Your task to perform on an android device: Clear all items from cart on newegg. Add macbook pro 13 inch to the cart on newegg, then select checkout. Image 0: 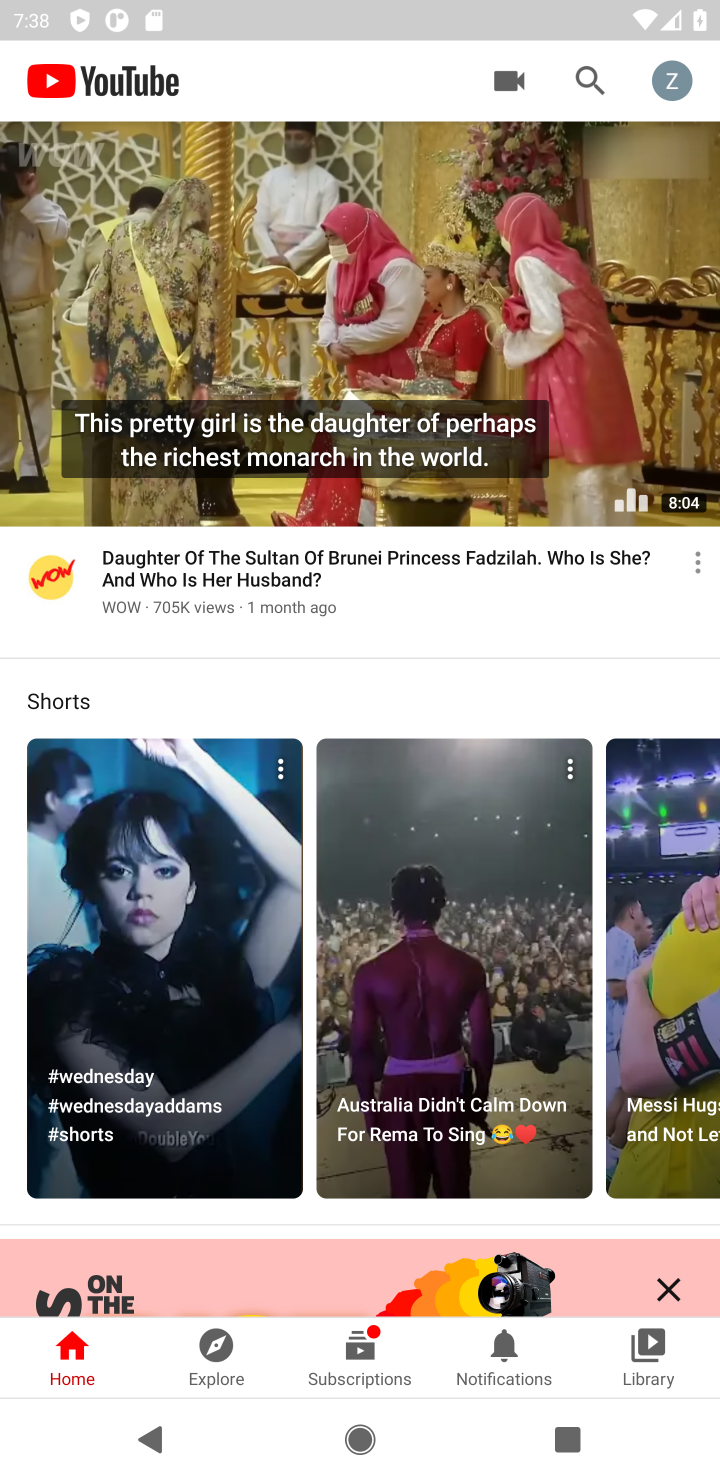
Step 0: press home button
Your task to perform on an android device: Clear all items from cart on newegg. Add macbook pro 13 inch to the cart on newegg, then select checkout. Image 1: 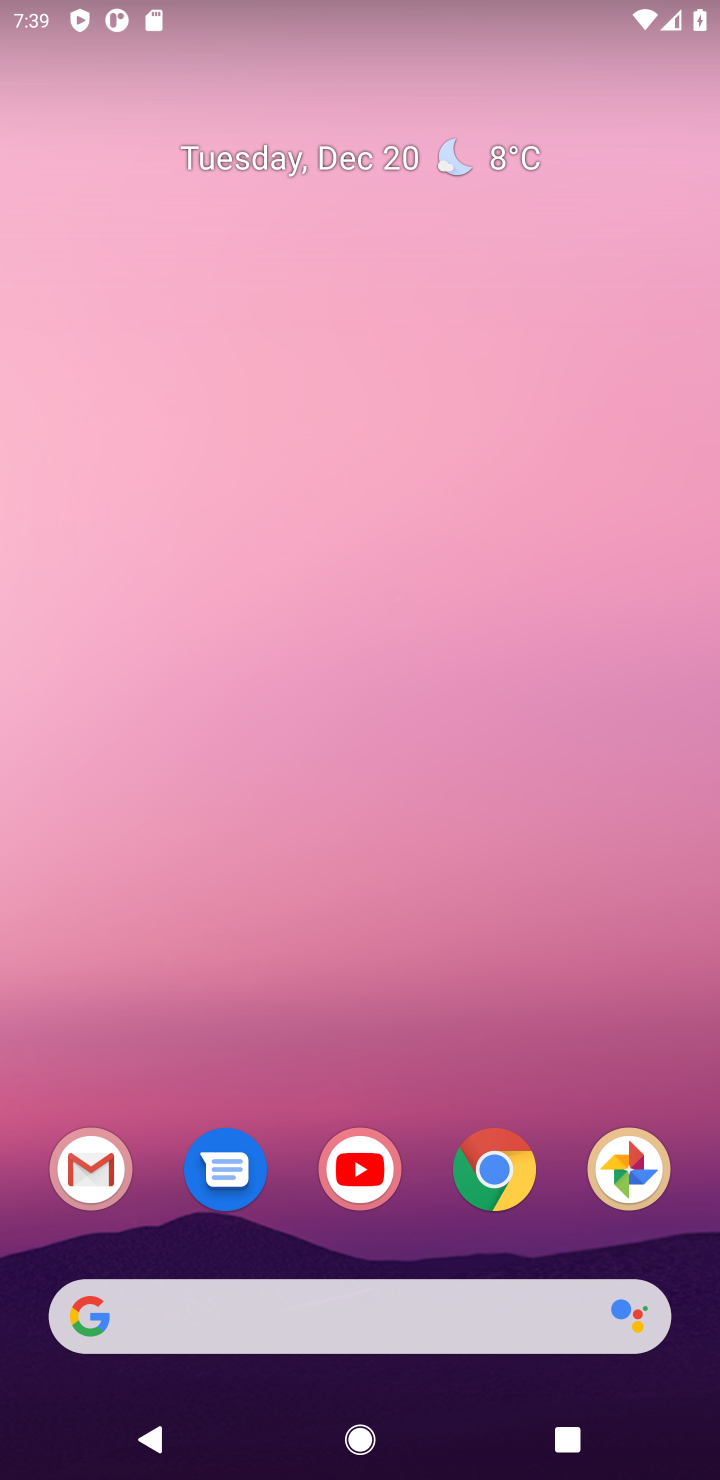
Step 1: click (498, 1135)
Your task to perform on an android device: Clear all items from cart on newegg. Add macbook pro 13 inch to the cart on newegg, then select checkout. Image 2: 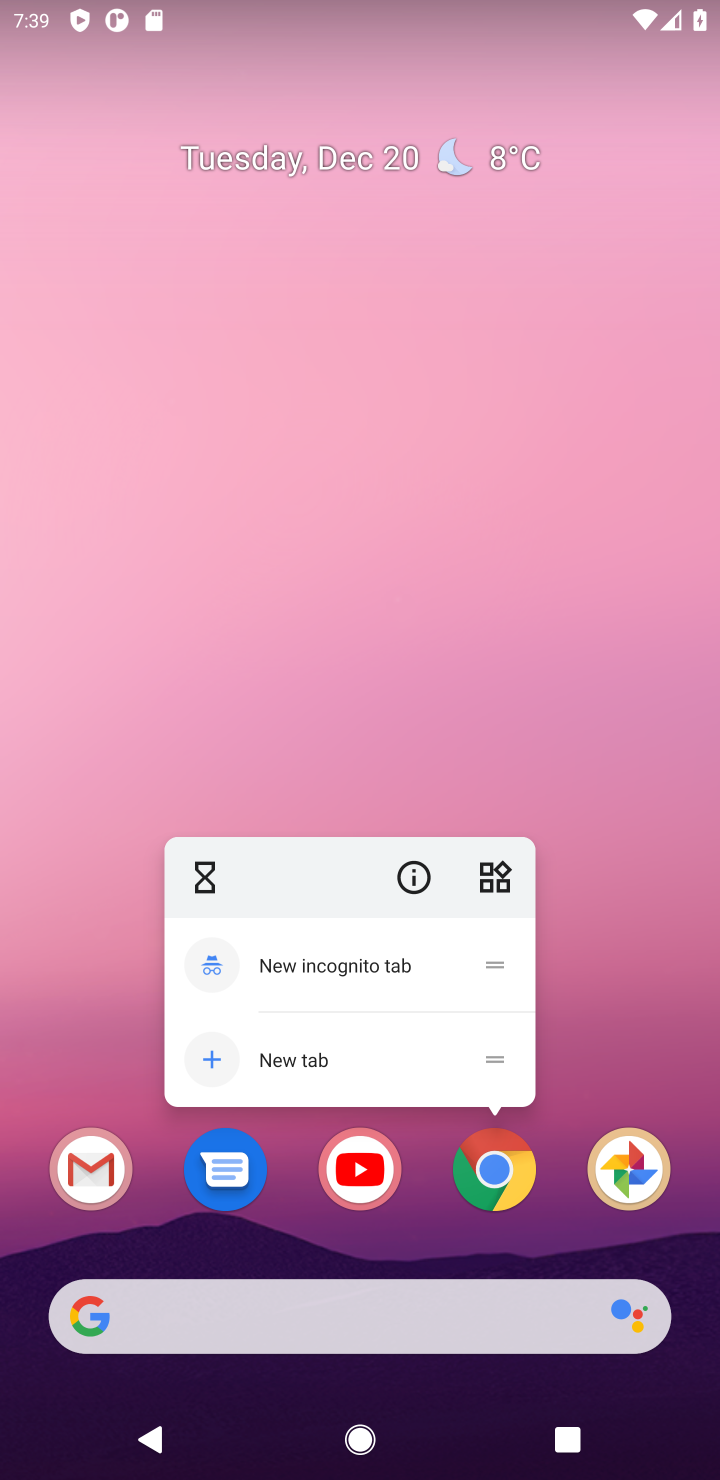
Step 2: click (473, 1179)
Your task to perform on an android device: Clear all items from cart on newegg. Add macbook pro 13 inch to the cart on newegg, then select checkout. Image 3: 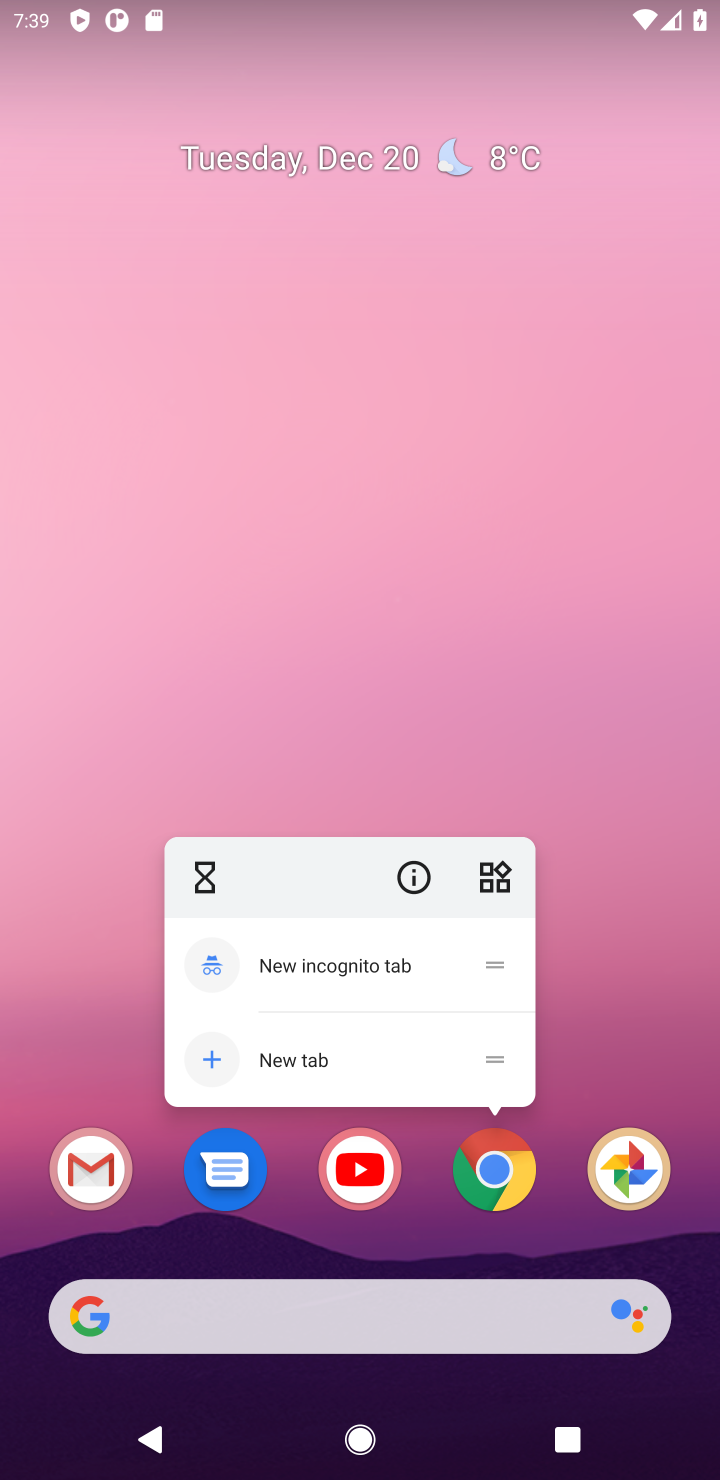
Step 3: click (473, 1179)
Your task to perform on an android device: Clear all items from cart on newegg. Add macbook pro 13 inch to the cart on newegg, then select checkout. Image 4: 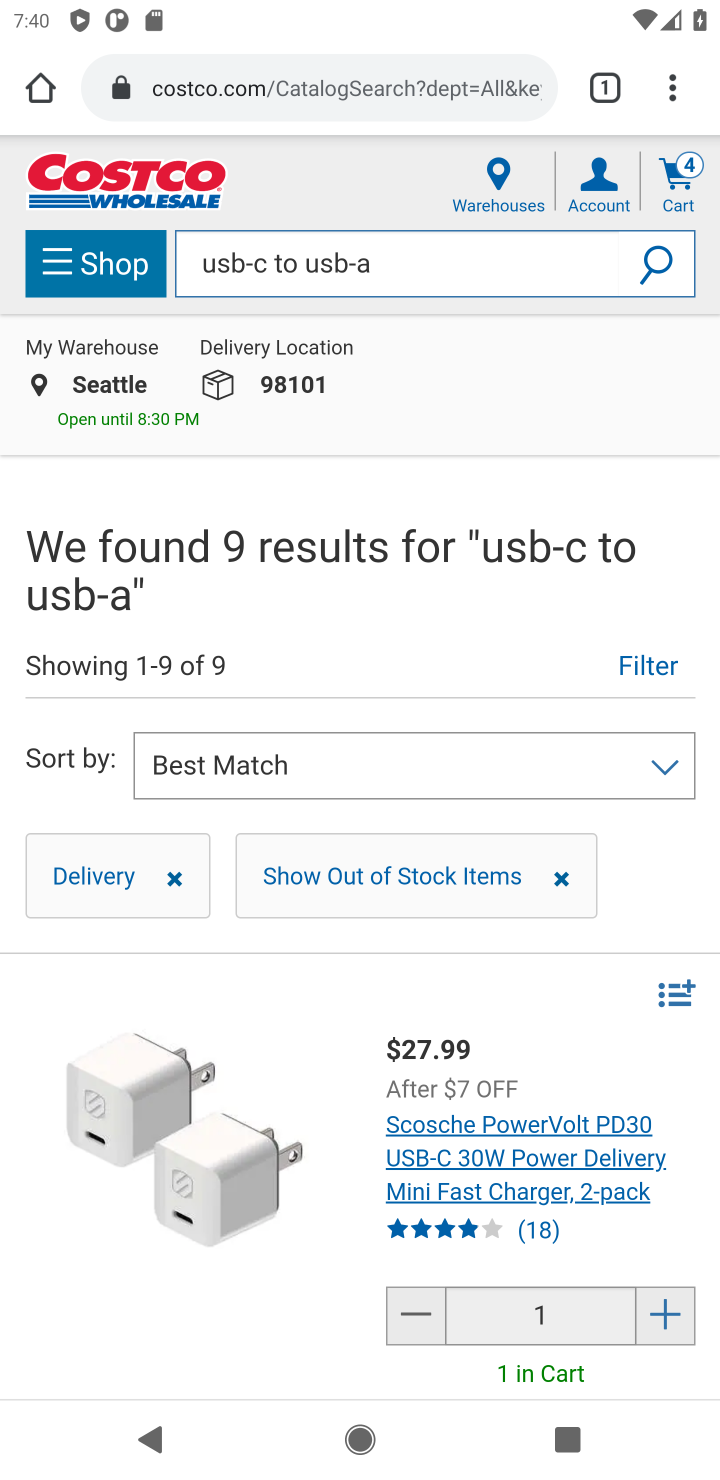
Step 4: click (310, 102)
Your task to perform on an android device: Clear all items from cart on newegg. Add macbook pro 13 inch to the cart on newegg, then select checkout. Image 5: 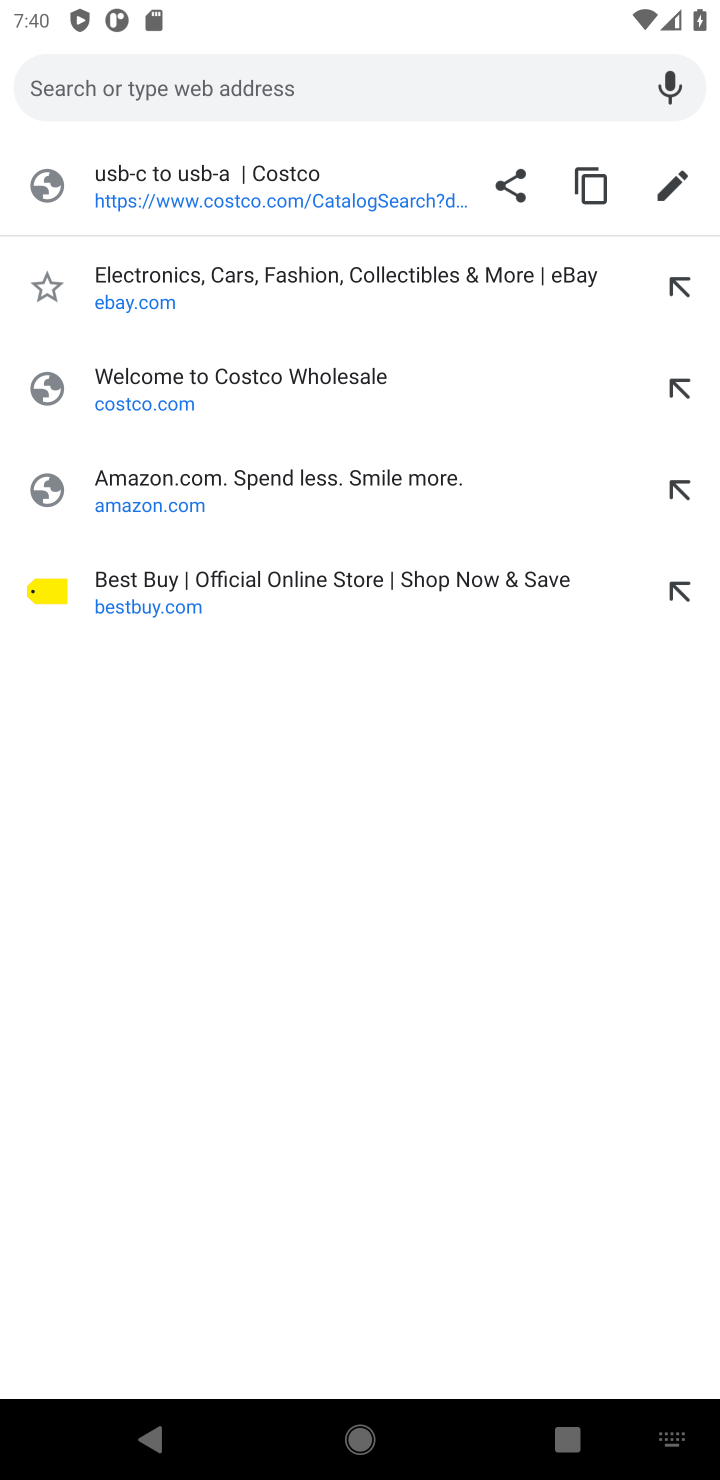
Step 5: type "newegg"
Your task to perform on an android device: Clear all items from cart on newegg. Add macbook pro 13 inch to the cart on newegg, then select checkout. Image 6: 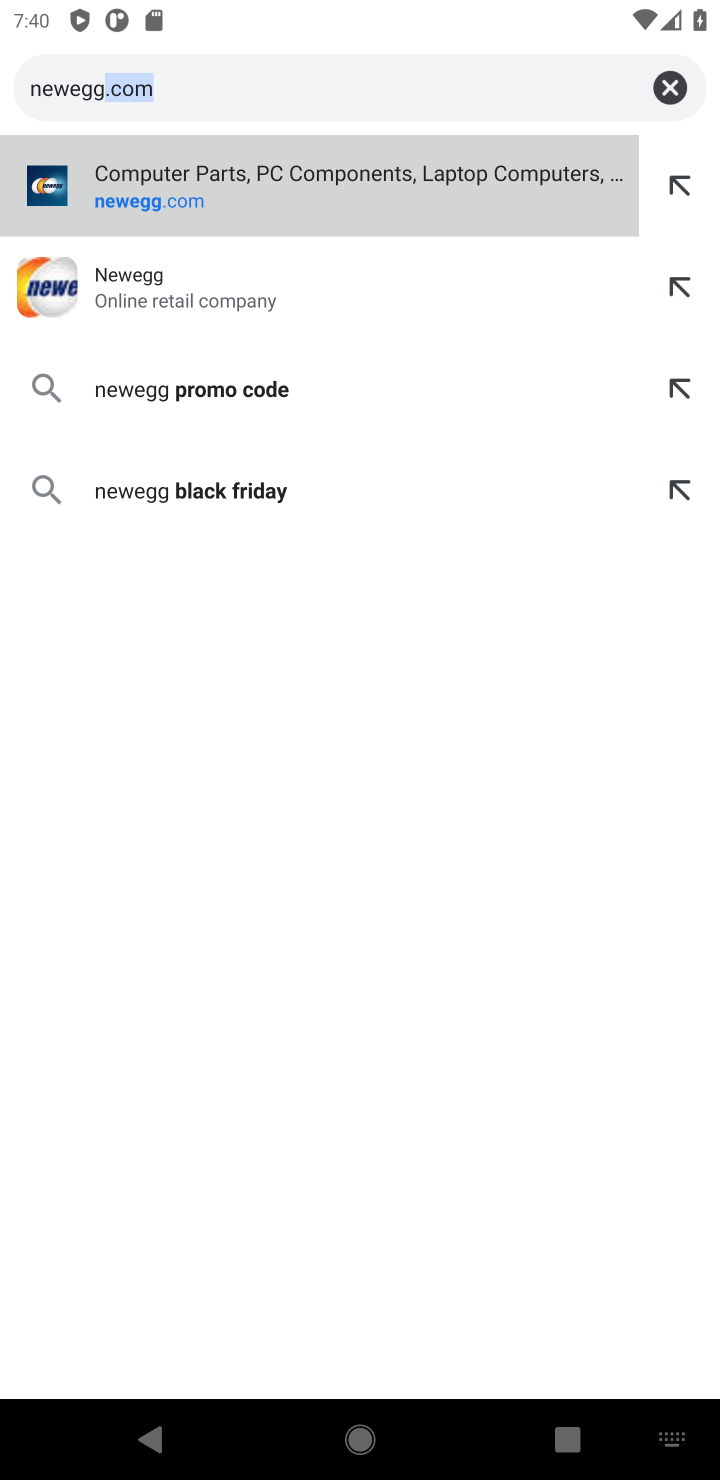
Step 6: click (295, 177)
Your task to perform on an android device: Clear all items from cart on newegg. Add macbook pro 13 inch to the cart on newegg, then select checkout. Image 7: 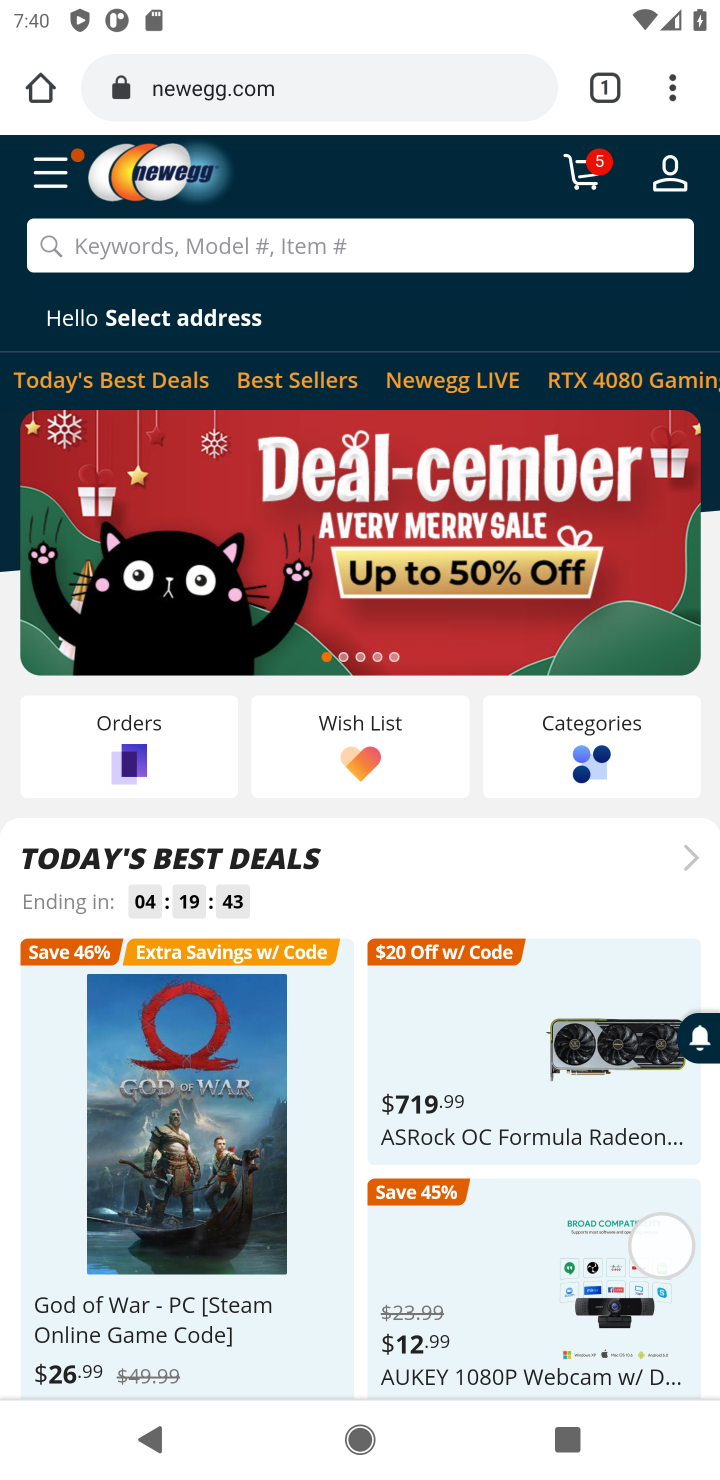
Step 7: click (406, 255)
Your task to perform on an android device: Clear all items from cart on newegg. Add macbook pro 13 inch to the cart on newegg, then select checkout. Image 8: 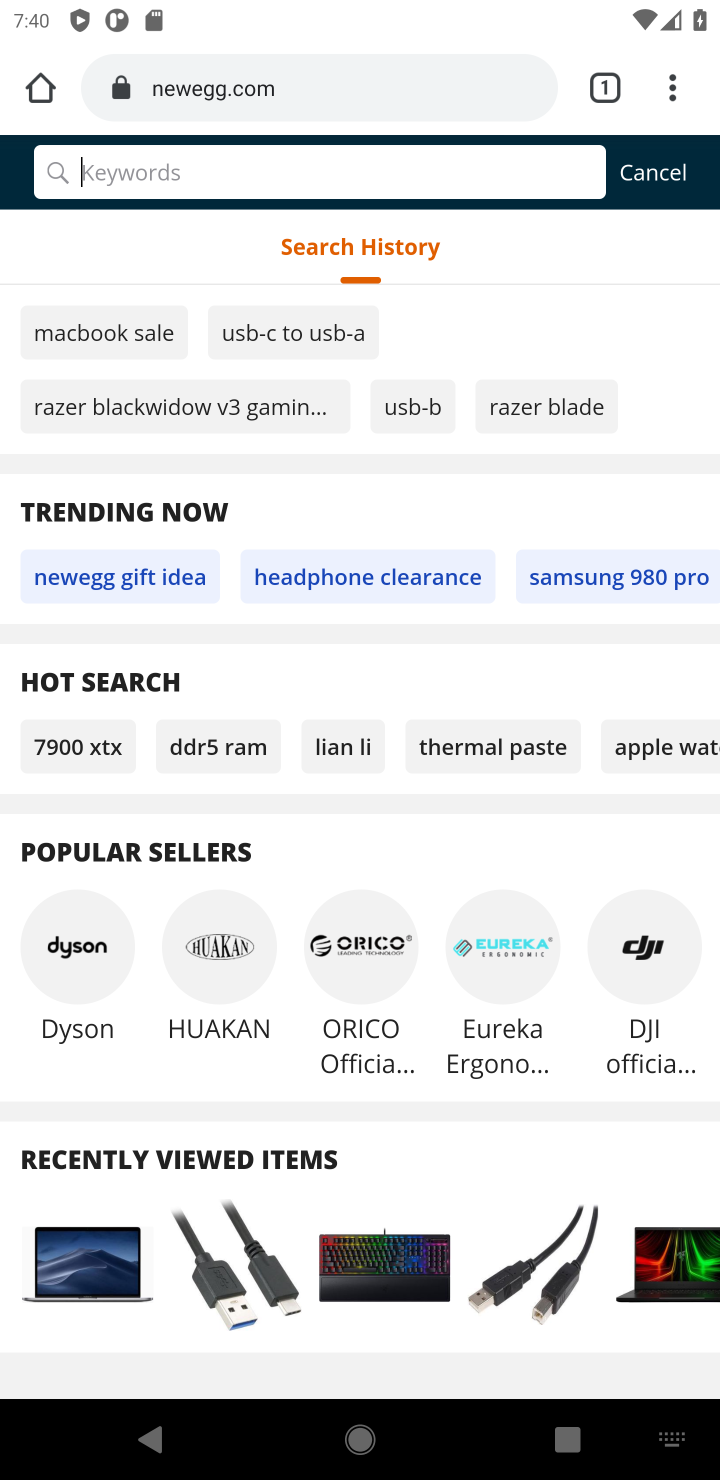
Step 8: type "macbook pro 13"
Your task to perform on an android device: Clear all items from cart on newegg. Add macbook pro 13 inch to the cart on newegg, then select checkout. Image 9: 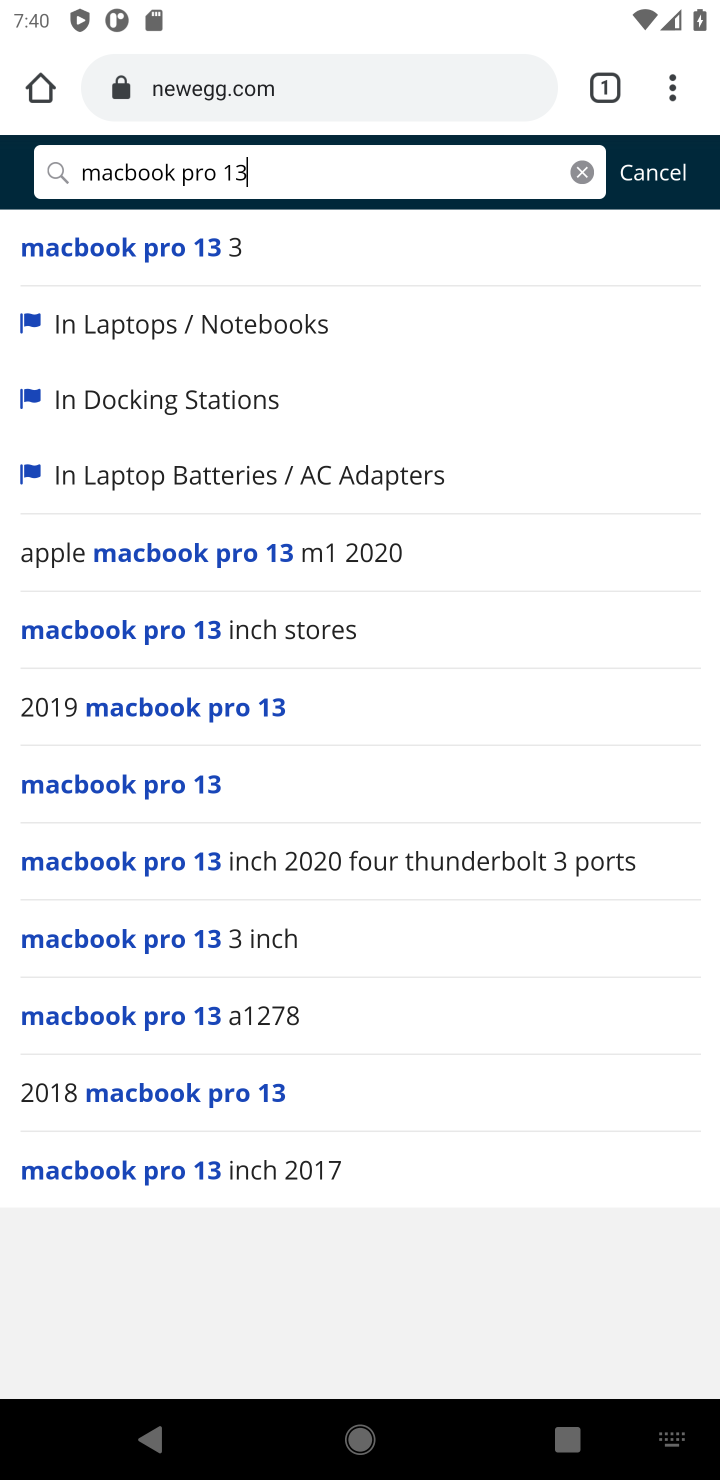
Step 9: click (127, 266)
Your task to perform on an android device: Clear all items from cart on newegg. Add macbook pro 13 inch to the cart on newegg, then select checkout. Image 10: 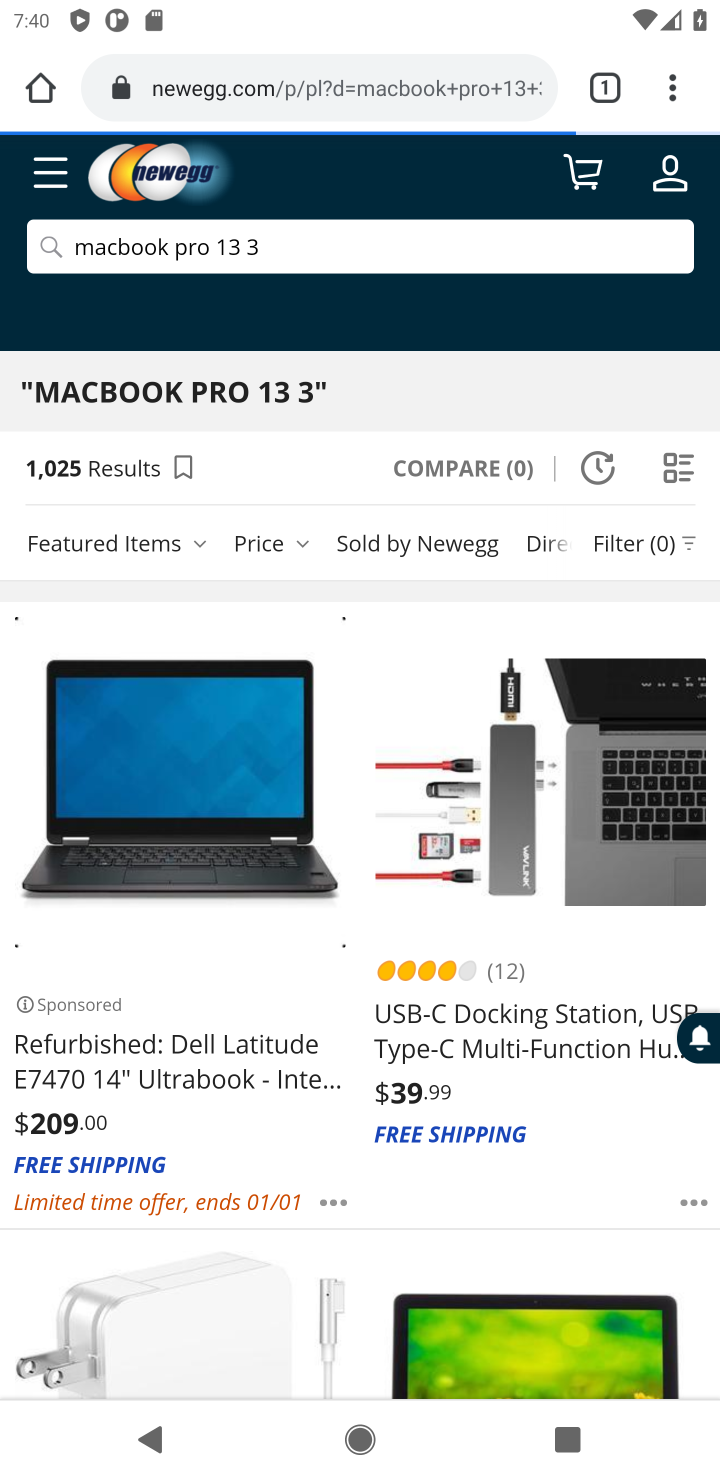
Step 10: click (195, 755)
Your task to perform on an android device: Clear all items from cart on newegg. Add macbook pro 13 inch to the cart on newegg, then select checkout. Image 11: 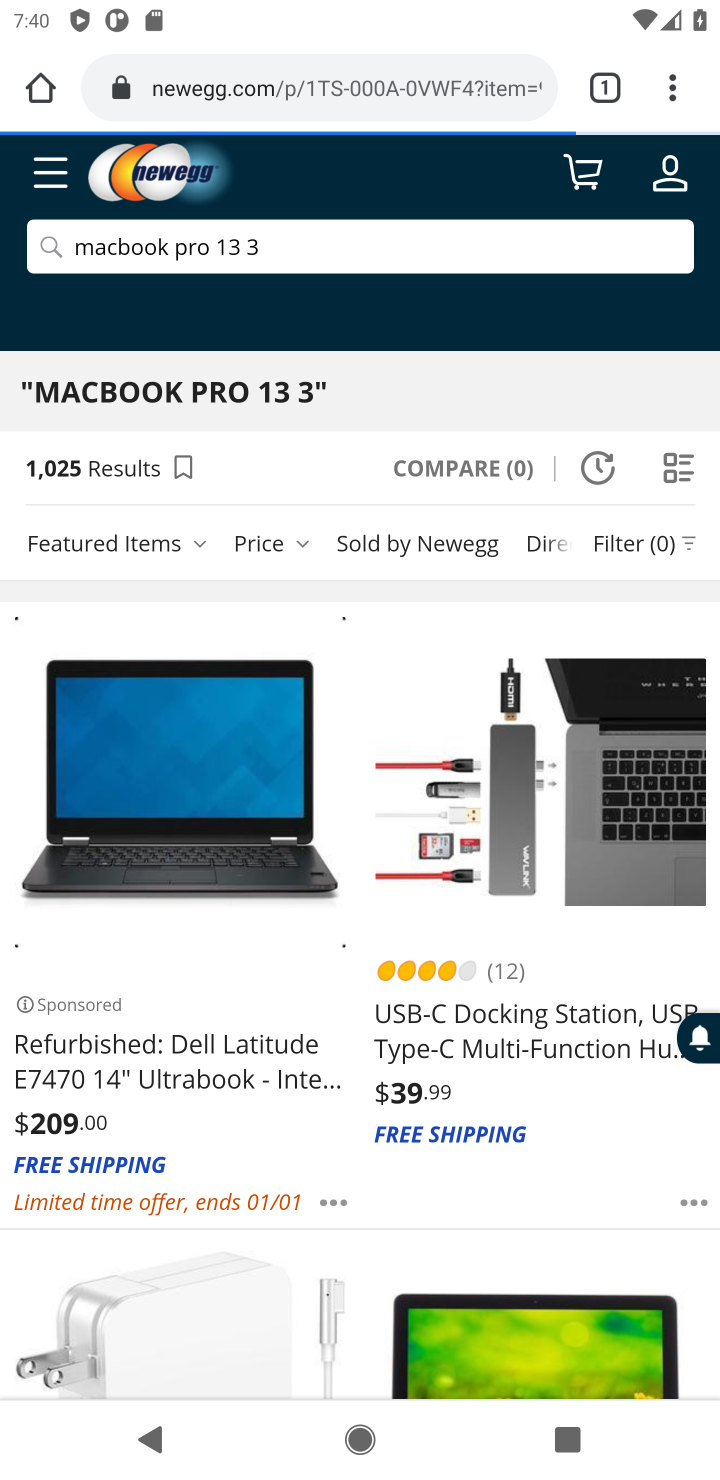
Step 11: click (186, 1095)
Your task to perform on an android device: Clear all items from cart on newegg. Add macbook pro 13 inch to the cart on newegg, then select checkout. Image 12: 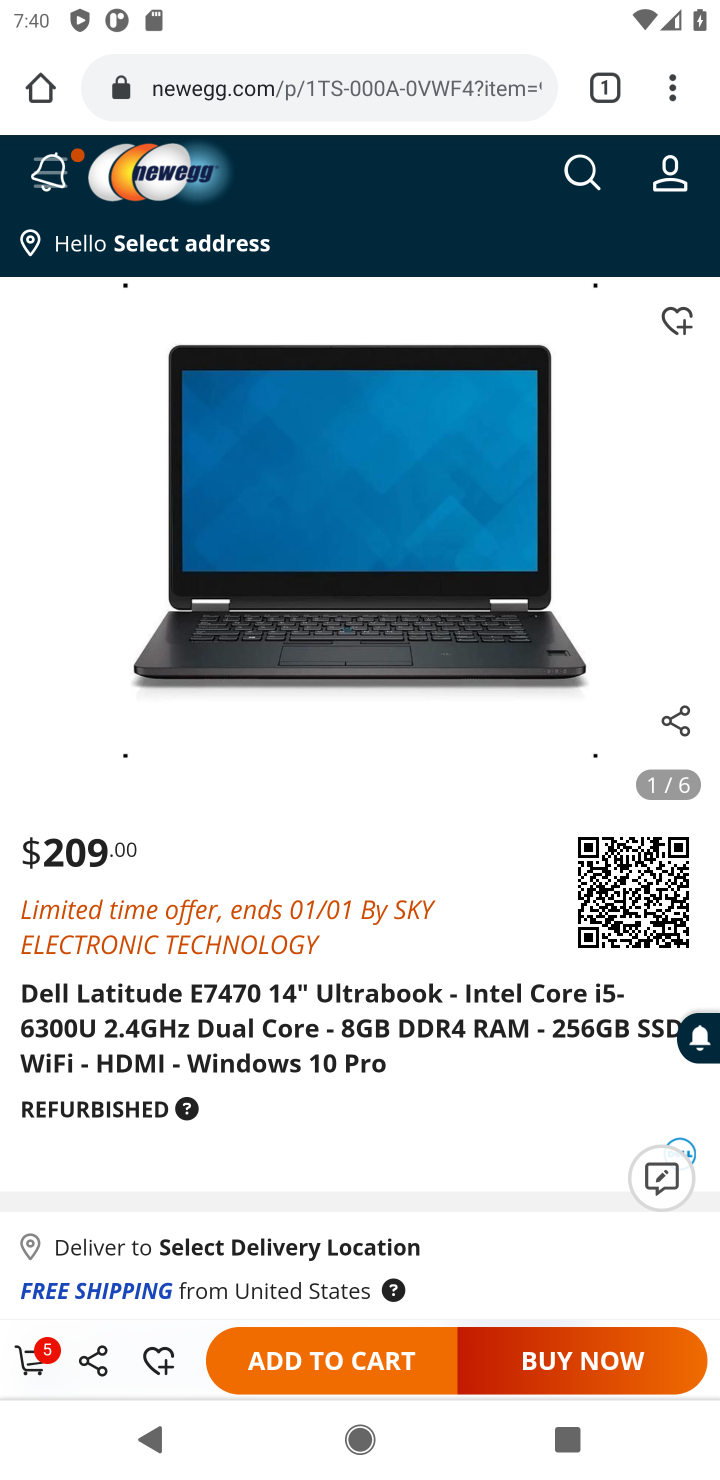
Step 12: click (326, 1352)
Your task to perform on an android device: Clear all items from cart on newegg. Add macbook pro 13 inch to the cart on newegg, then select checkout. Image 13: 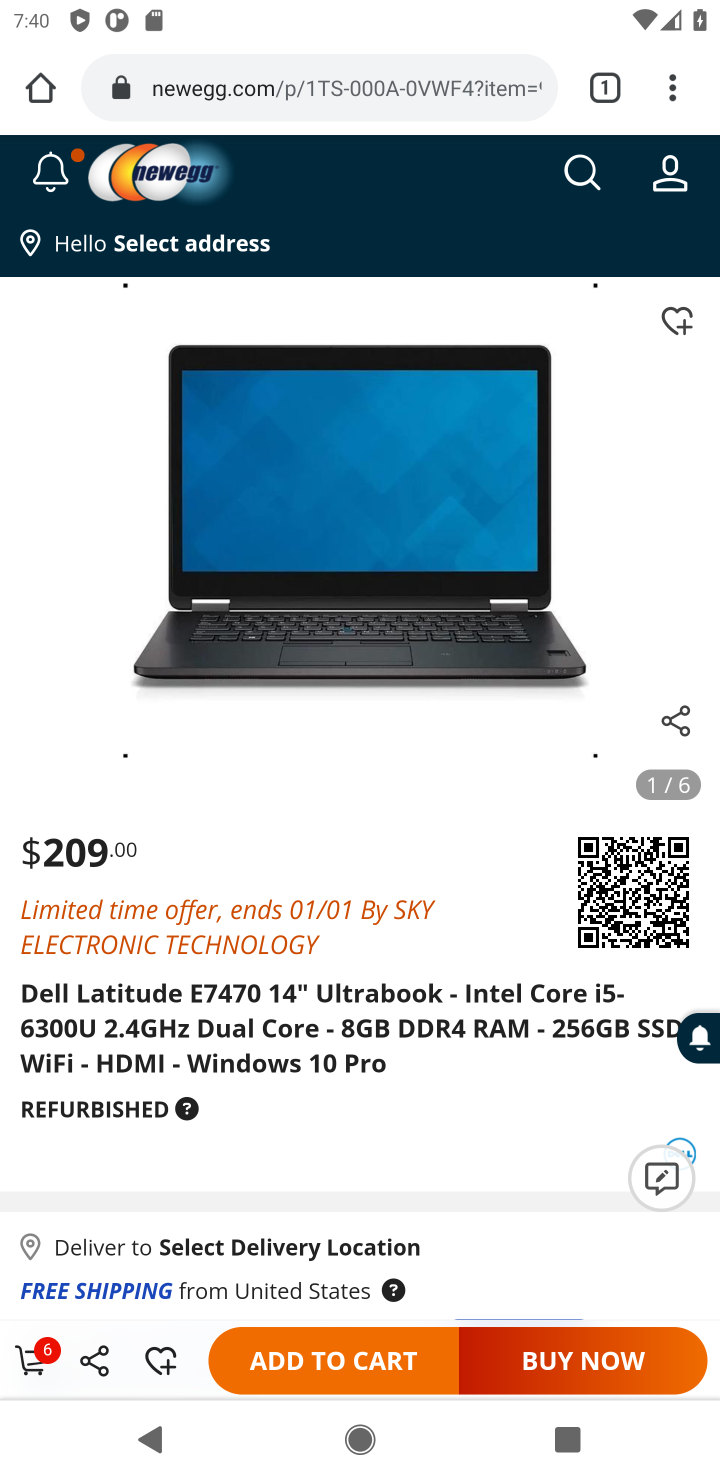
Step 13: task complete